Your task to perform on an android device: delete location history Image 0: 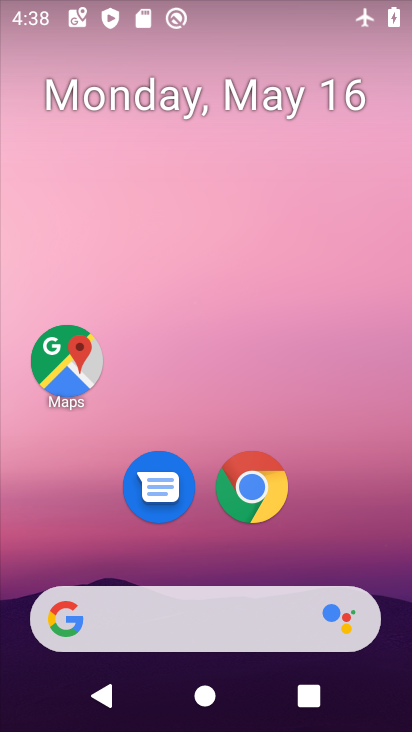
Step 0: click (62, 358)
Your task to perform on an android device: delete location history Image 1: 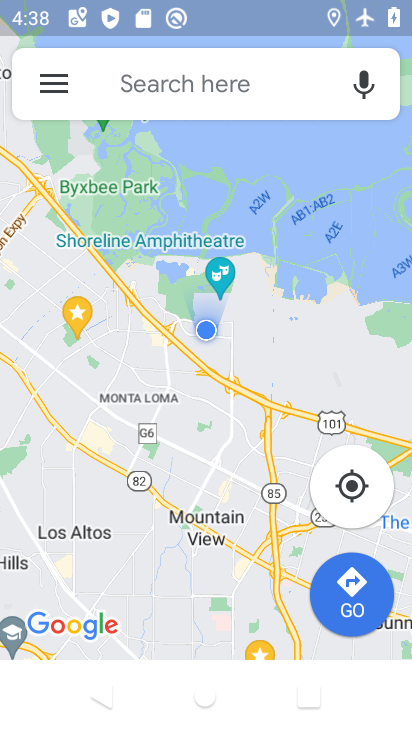
Step 1: click (54, 85)
Your task to perform on an android device: delete location history Image 2: 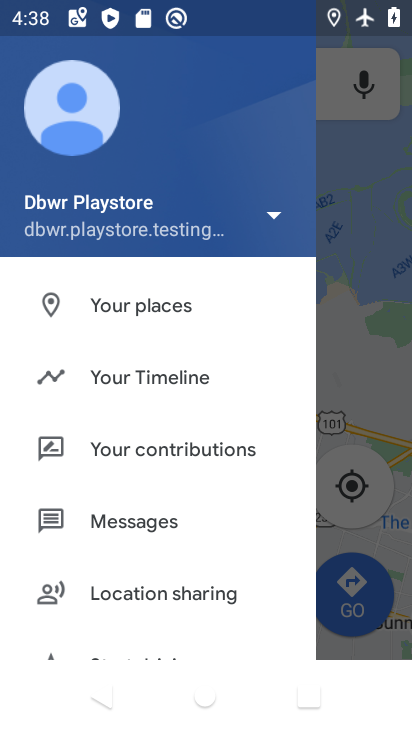
Step 2: drag from (261, 582) to (244, 210)
Your task to perform on an android device: delete location history Image 3: 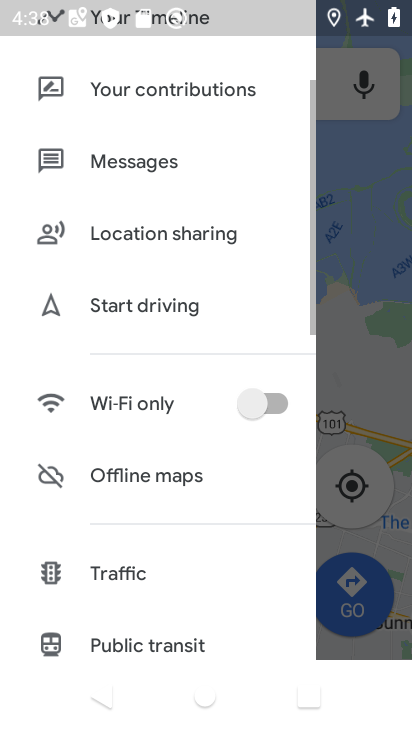
Step 3: drag from (248, 612) to (241, 211)
Your task to perform on an android device: delete location history Image 4: 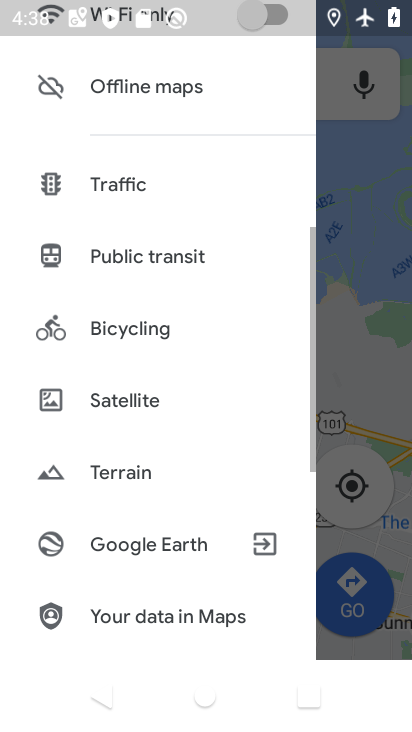
Step 4: drag from (254, 588) to (180, 120)
Your task to perform on an android device: delete location history Image 5: 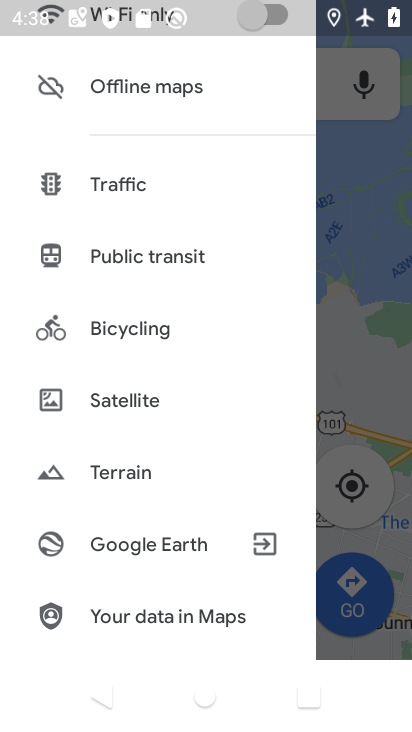
Step 5: drag from (200, 558) to (237, 128)
Your task to perform on an android device: delete location history Image 6: 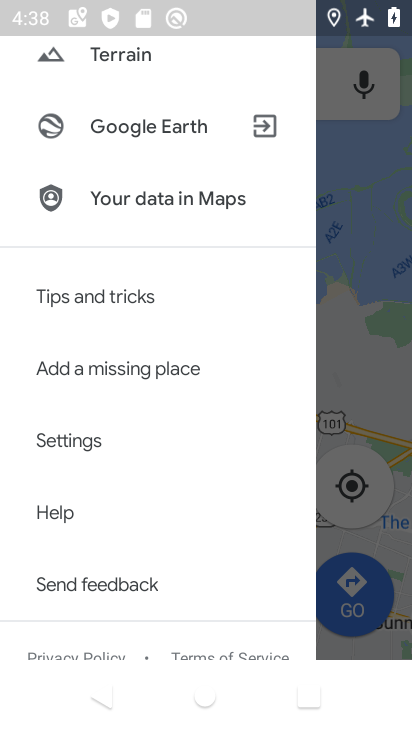
Step 6: click (49, 433)
Your task to perform on an android device: delete location history Image 7: 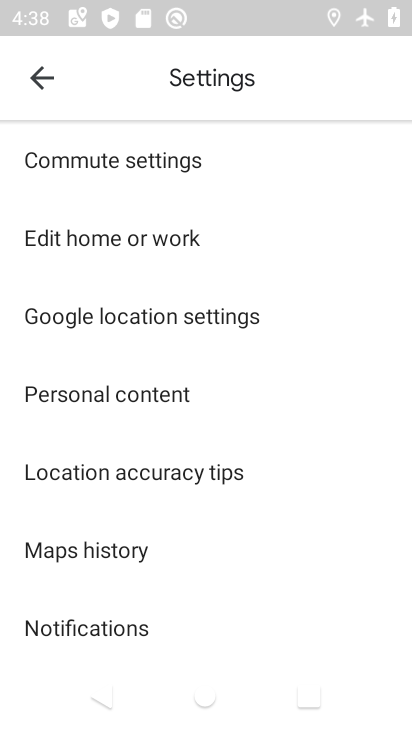
Step 7: click (70, 399)
Your task to perform on an android device: delete location history Image 8: 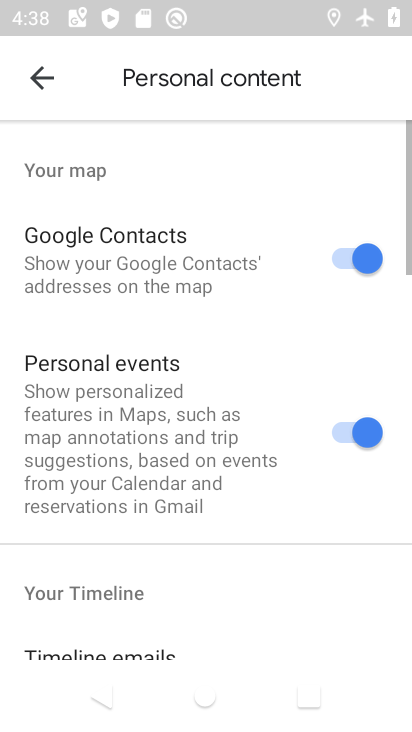
Step 8: click (265, 128)
Your task to perform on an android device: delete location history Image 9: 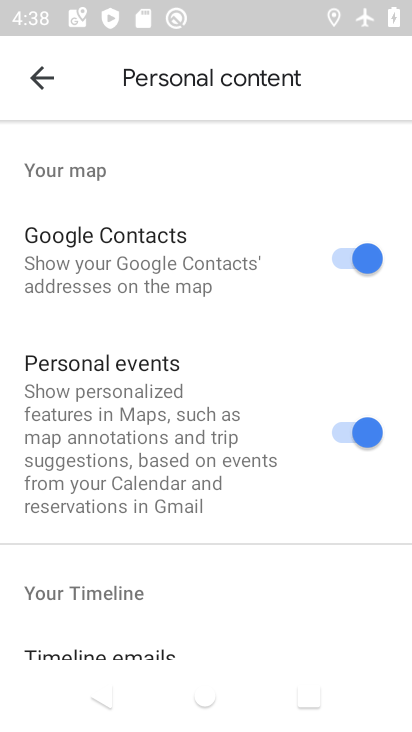
Step 9: drag from (276, 586) to (296, 33)
Your task to perform on an android device: delete location history Image 10: 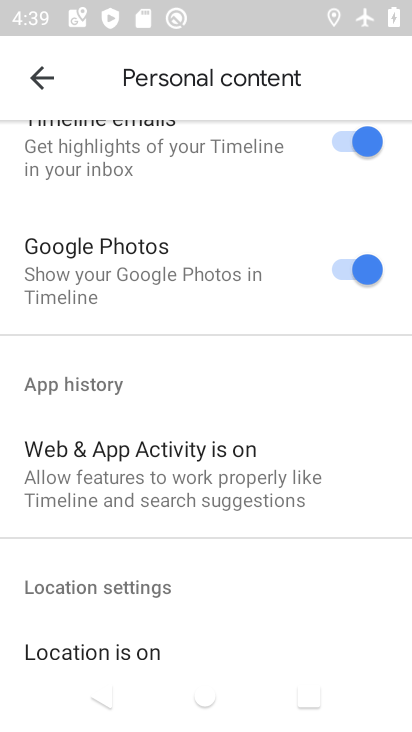
Step 10: drag from (263, 548) to (270, 143)
Your task to perform on an android device: delete location history Image 11: 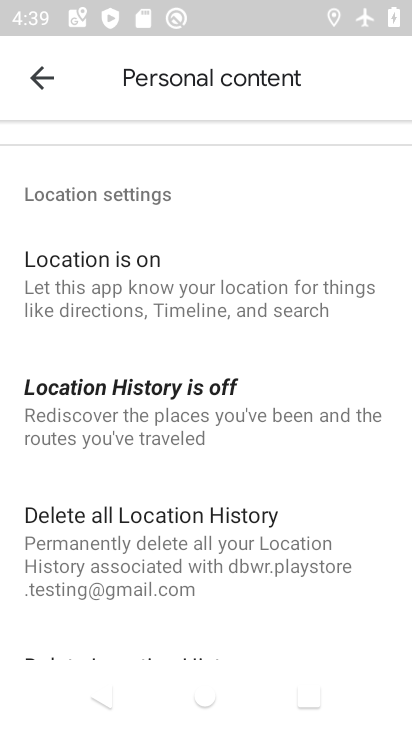
Step 11: click (155, 543)
Your task to perform on an android device: delete location history Image 12: 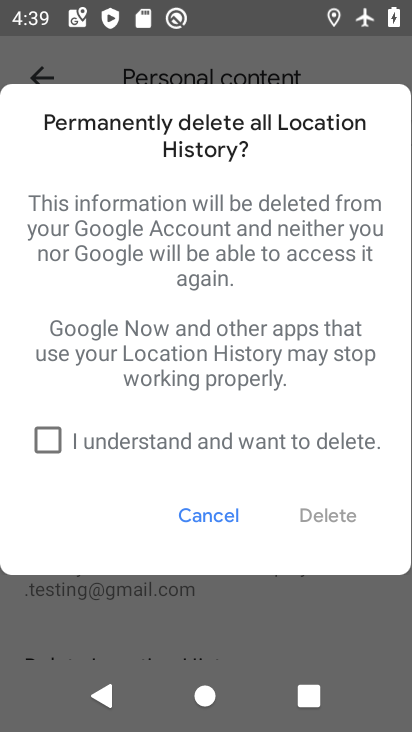
Step 12: click (38, 430)
Your task to perform on an android device: delete location history Image 13: 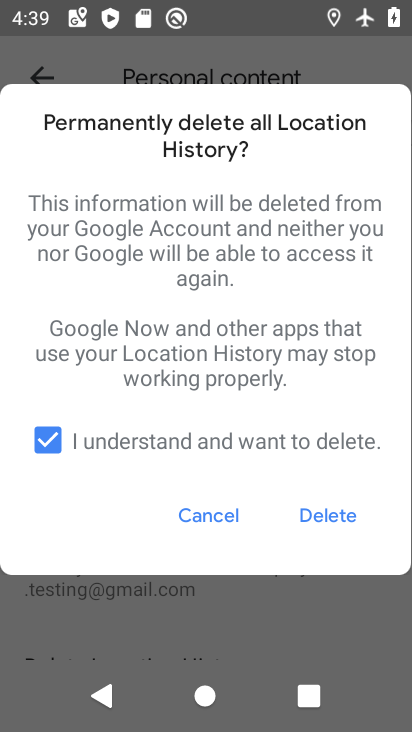
Step 13: click (324, 508)
Your task to perform on an android device: delete location history Image 14: 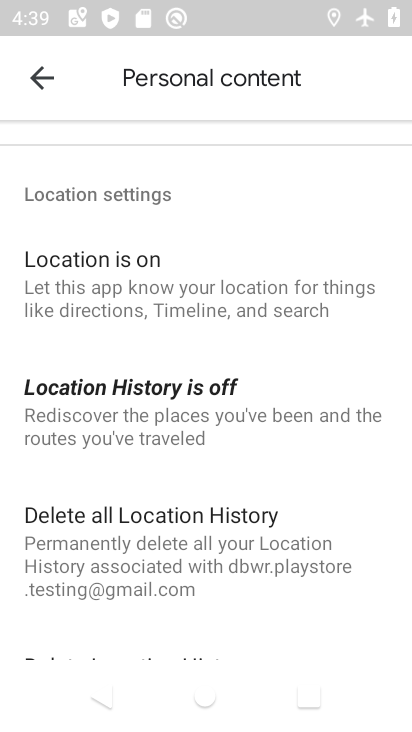
Step 14: task complete